Your task to perform on an android device: Open Chrome and go to settings Image 0: 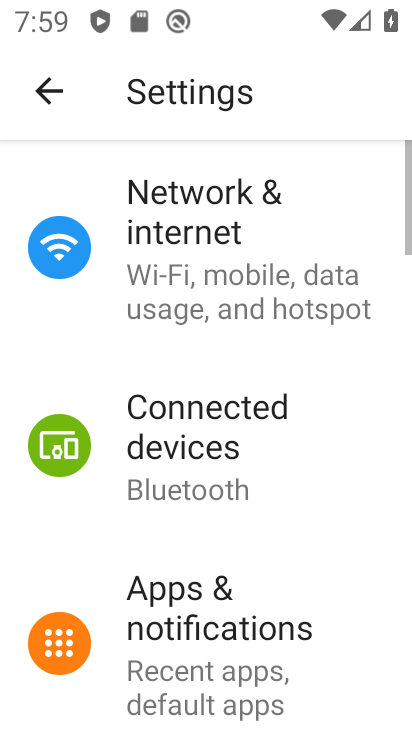
Step 0: press home button
Your task to perform on an android device: Open Chrome and go to settings Image 1: 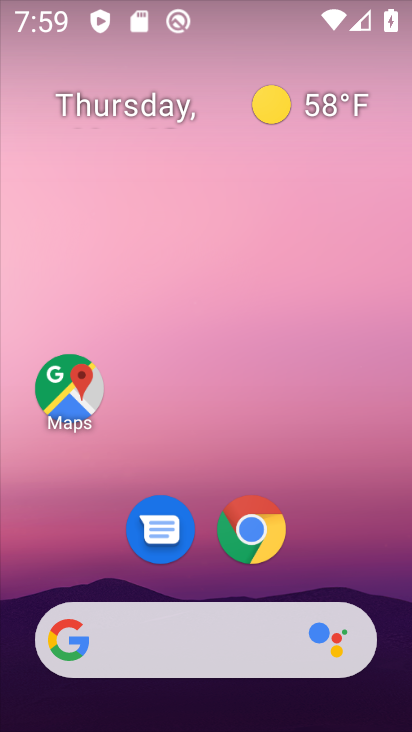
Step 1: click (253, 527)
Your task to perform on an android device: Open Chrome and go to settings Image 2: 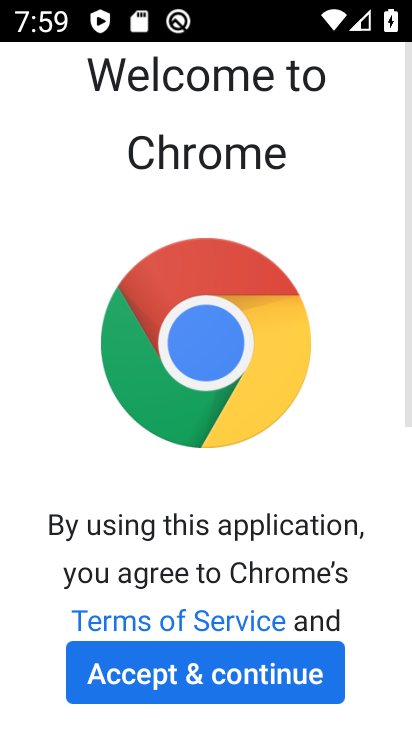
Step 2: click (195, 683)
Your task to perform on an android device: Open Chrome and go to settings Image 3: 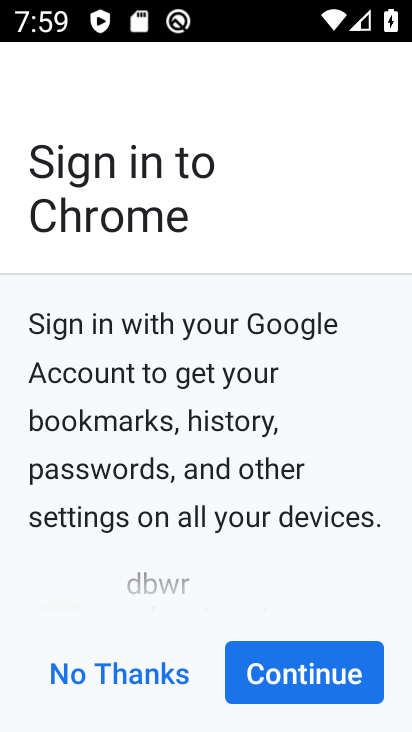
Step 3: click (276, 680)
Your task to perform on an android device: Open Chrome and go to settings Image 4: 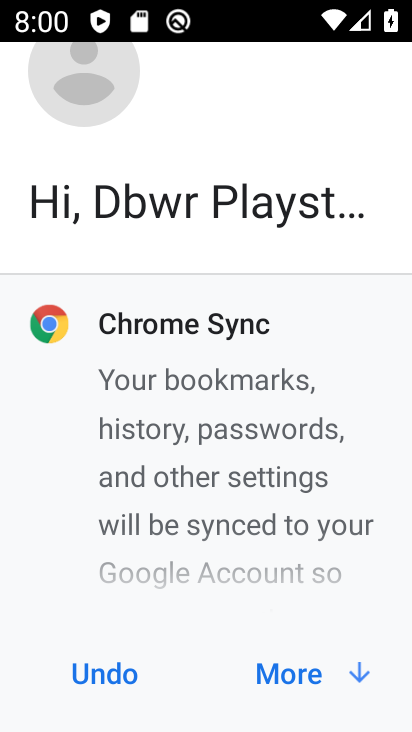
Step 4: click (276, 681)
Your task to perform on an android device: Open Chrome and go to settings Image 5: 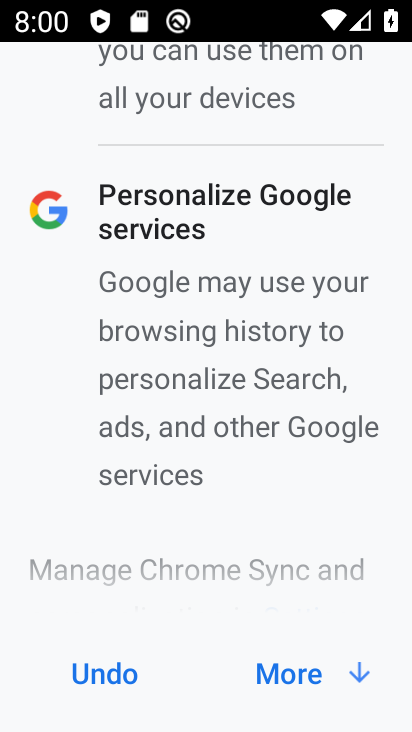
Step 5: click (278, 682)
Your task to perform on an android device: Open Chrome and go to settings Image 6: 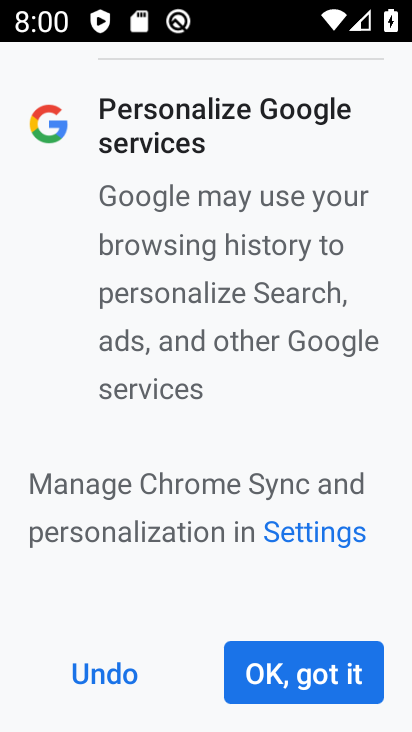
Step 6: click (278, 682)
Your task to perform on an android device: Open Chrome and go to settings Image 7: 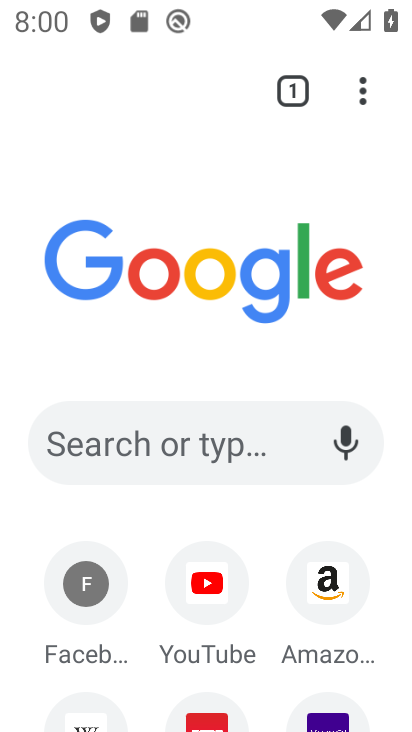
Step 7: click (354, 91)
Your task to perform on an android device: Open Chrome and go to settings Image 8: 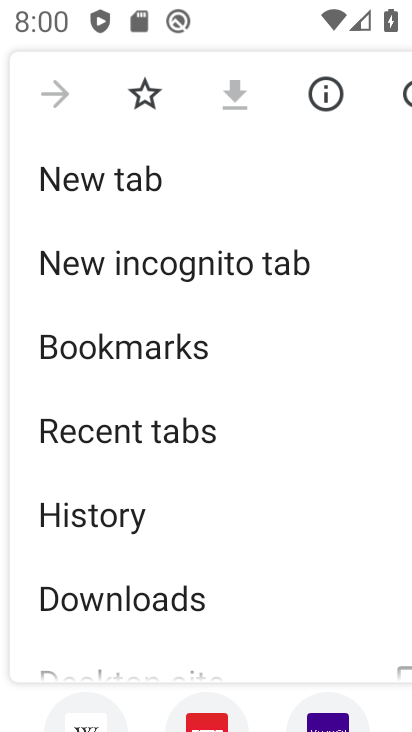
Step 8: drag from (211, 547) to (228, 52)
Your task to perform on an android device: Open Chrome and go to settings Image 9: 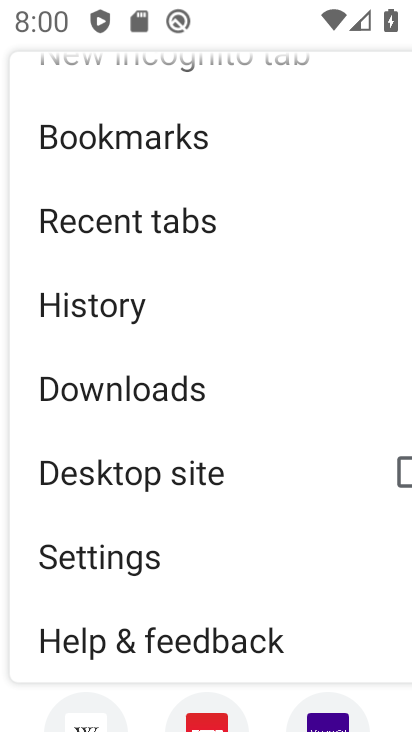
Step 9: click (112, 561)
Your task to perform on an android device: Open Chrome and go to settings Image 10: 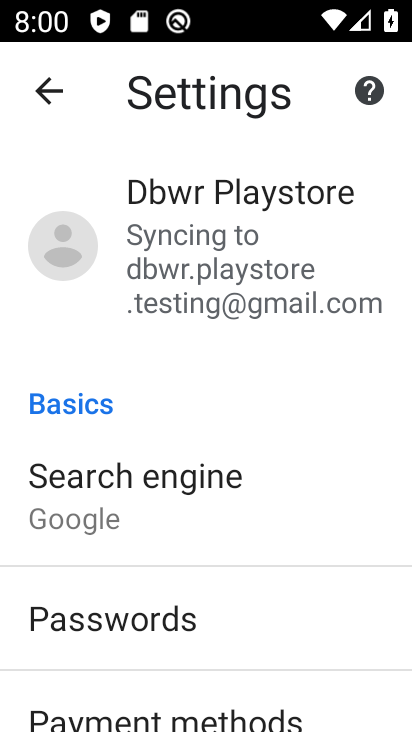
Step 10: task complete